Your task to perform on an android device: find photos in the google photos app Image 0: 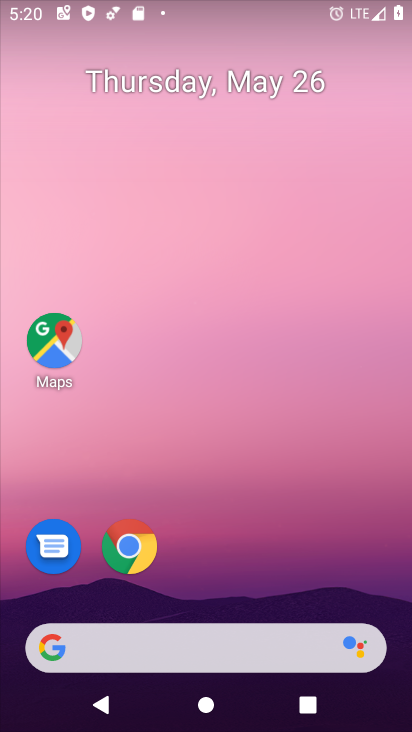
Step 0: drag from (265, 543) to (241, 115)
Your task to perform on an android device: find photos in the google photos app Image 1: 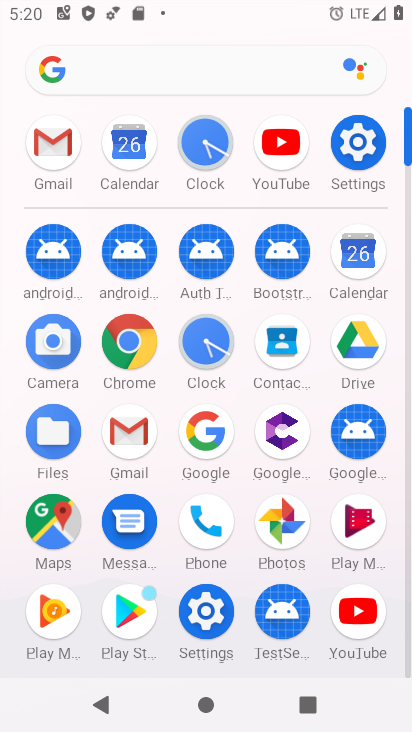
Step 1: click (272, 521)
Your task to perform on an android device: find photos in the google photos app Image 2: 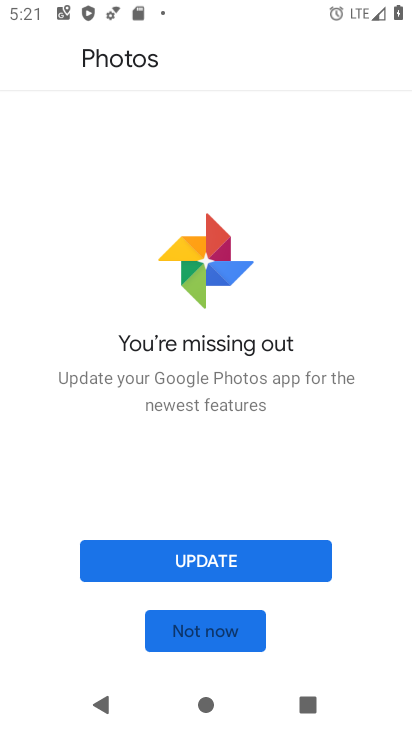
Step 2: click (228, 636)
Your task to perform on an android device: find photos in the google photos app Image 3: 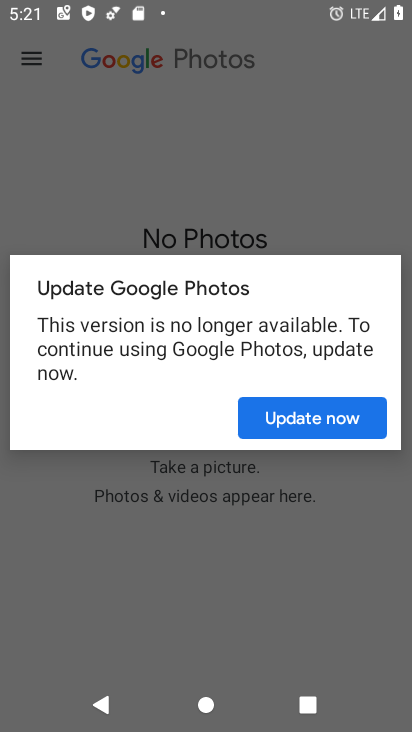
Step 3: press home button
Your task to perform on an android device: find photos in the google photos app Image 4: 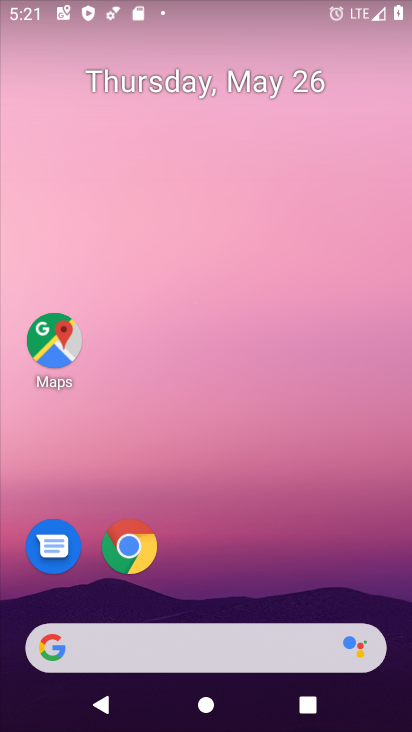
Step 4: drag from (189, 607) to (311, 42)
Your task to perform on an android device: find photos in the google photos app Image 5: 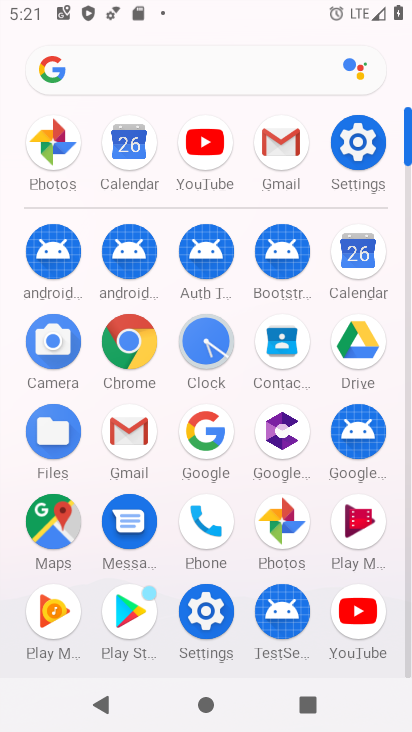
Step 5: click (287, 516)
Your task to perform on an android device: find photos in the google photos app Image 6: 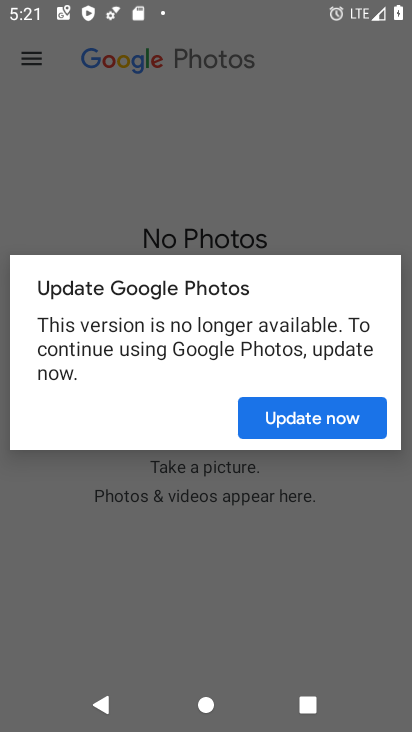
Step 6: click (301, 424)
Your task to perform on an android device: find photos in the google photos app Image 7: 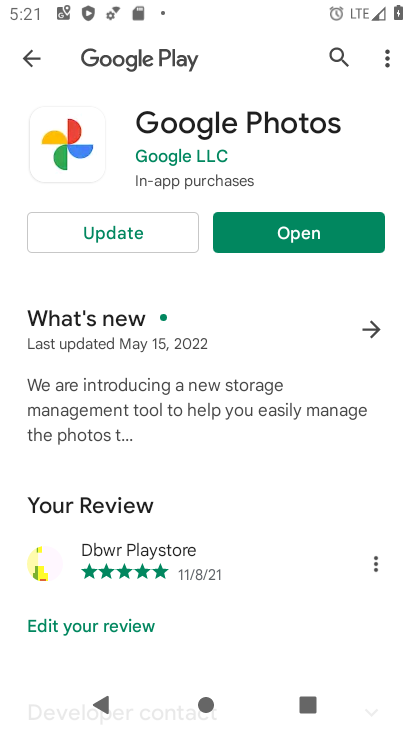
Step 7: click (281, 240)
Your task to perform on an android device: find photos in the google photos app Image 8: 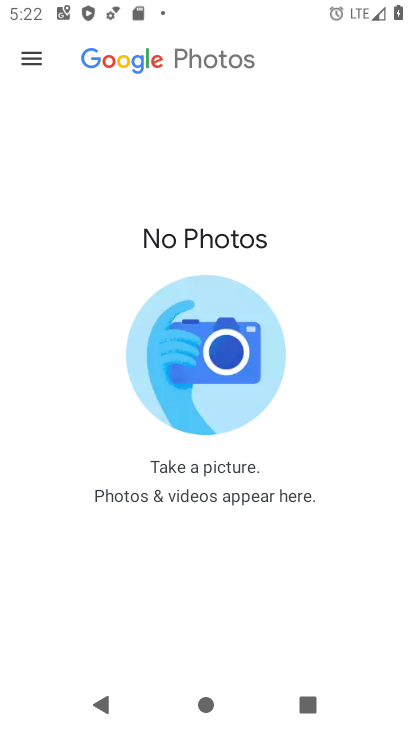
Step 8: task complete